Your task to perform on an android device: toggle javascript in the chrome app Image 0: 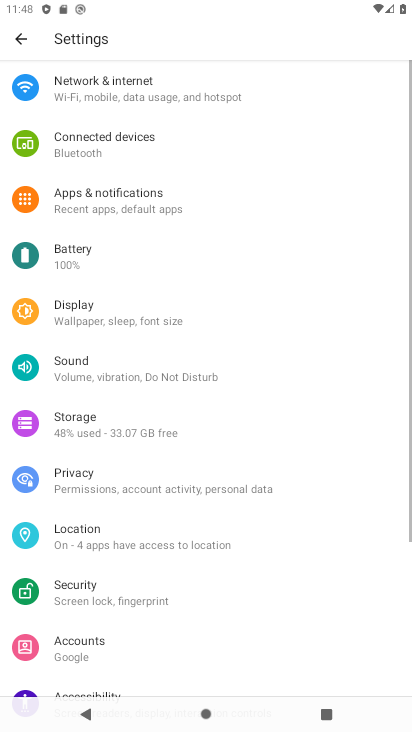
Step 0: press home button
Your task to perform on an android device: toggle javascript in the chrome app Image 1: 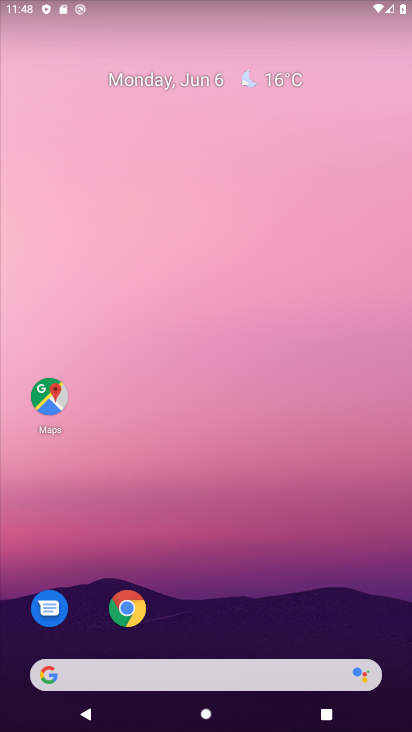
Step 1: click (126, 610)
Your task to perform on an android device: toggle javascript in the chrome app Image 2: 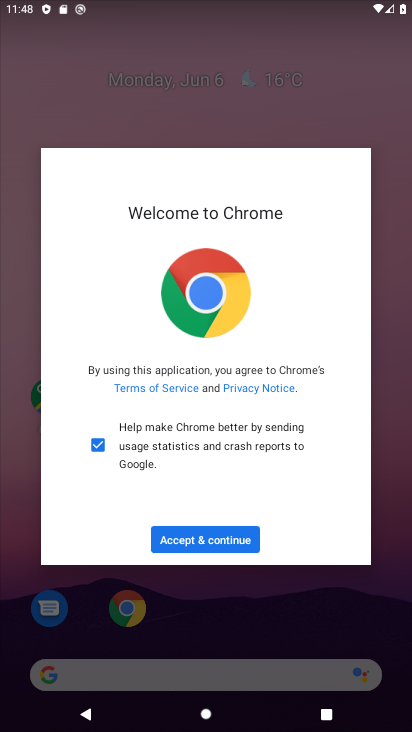
Step 2: click (209, 538)
Your task to perform on an android device: toggle javascript in the chrome app Image 3: 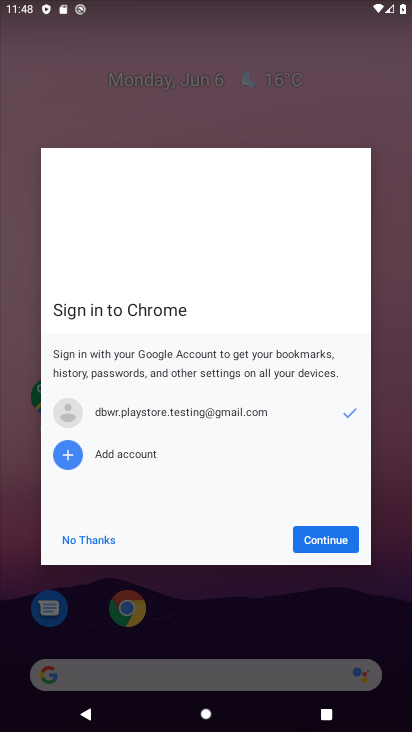
Step 3: click (306, 537)
Your task to perform on an android device: toggle javascript in the chrome app Image 4: 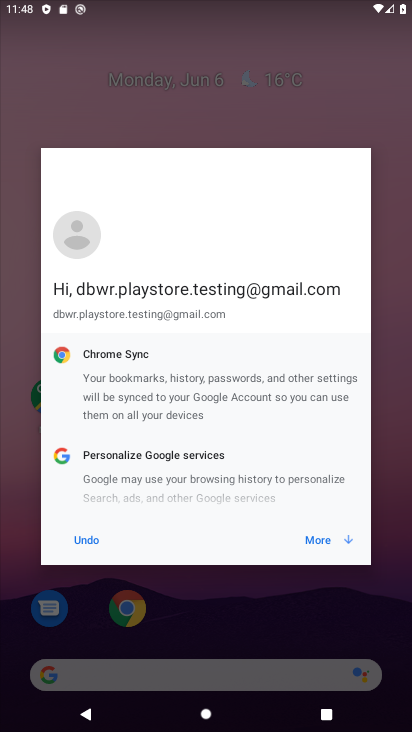
Step 4: click (309, 535)
Your task to perform on an android device: toggle javascript in the chrome app Image 5: 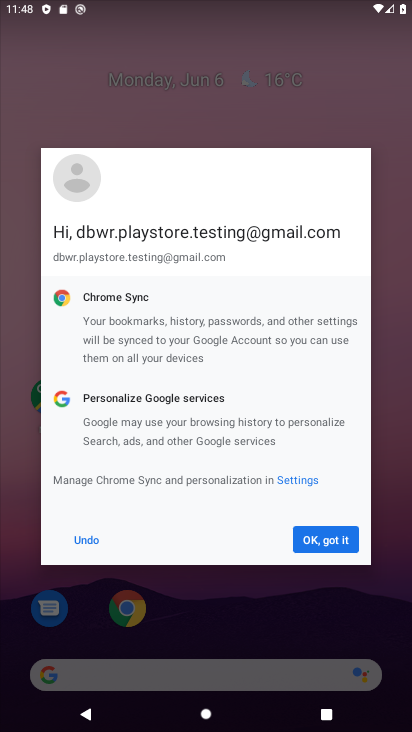
Step 5: click (338, 536)
Your task to perform on an android device: toggle javascript in the chrome app Image 6: 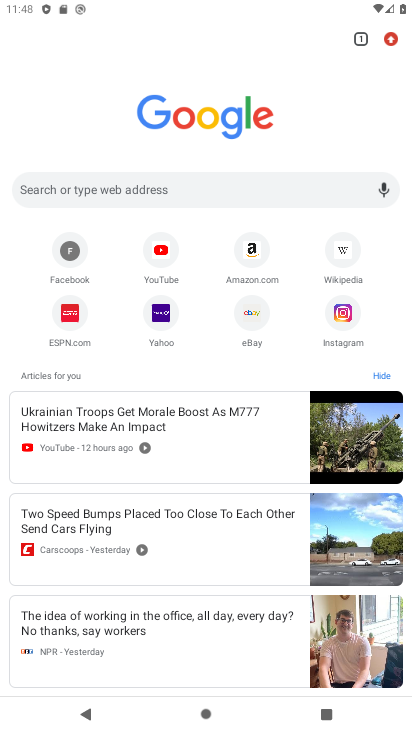
Step 6: click (388, 44)
Your task to perform on an android device: toggle javascript in the chrome app Image 7: 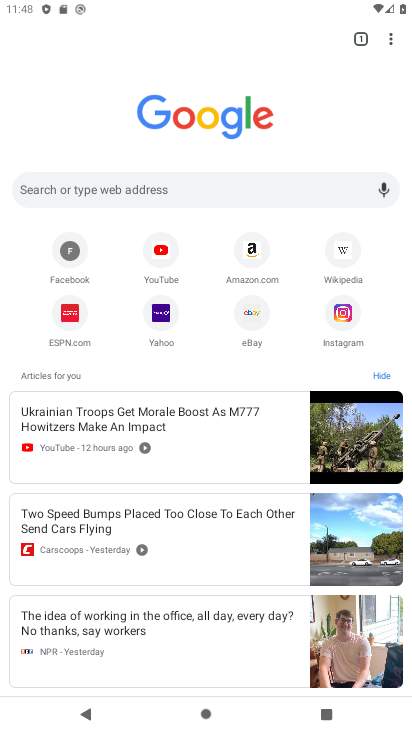
Step 7: click (388, 44)
Your task to perform on an android device: toggle javascript in the chrome app Image 8: 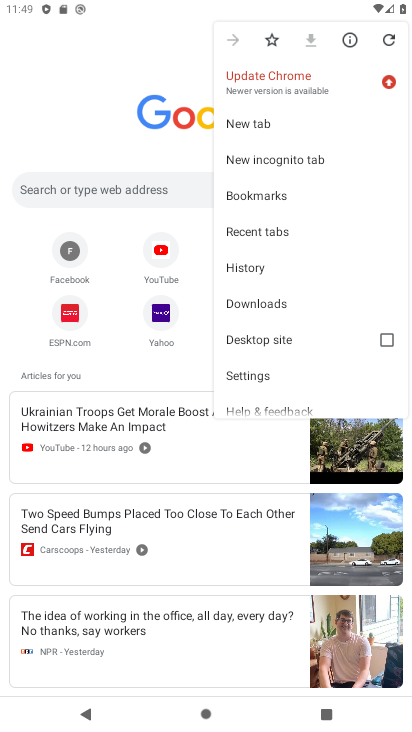
Step 8: click (281, 384)
Your task to perform on an android device: toggle javascript in the chrome app Image 9: 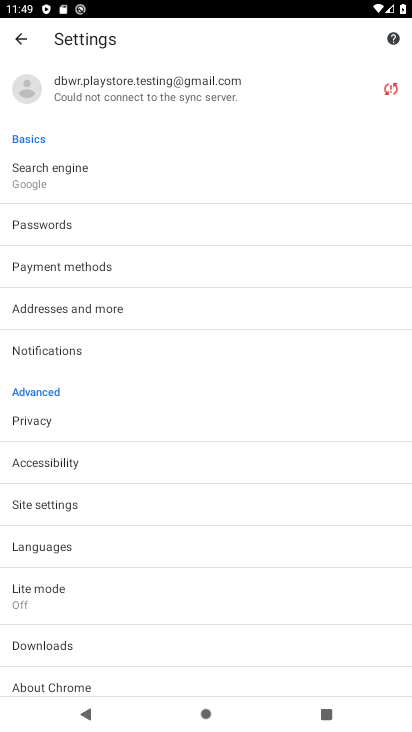
Step 9: click (50, 510)
Your task to perform on an android device: toggle javascript in the chrome app Image 10: 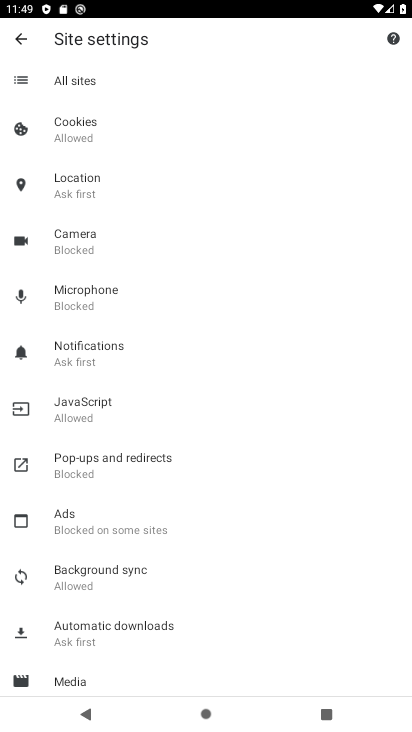
Step 10: click (105, 408)
Your task to perform on an android device: toggle javascript in the chrome app Image 11: 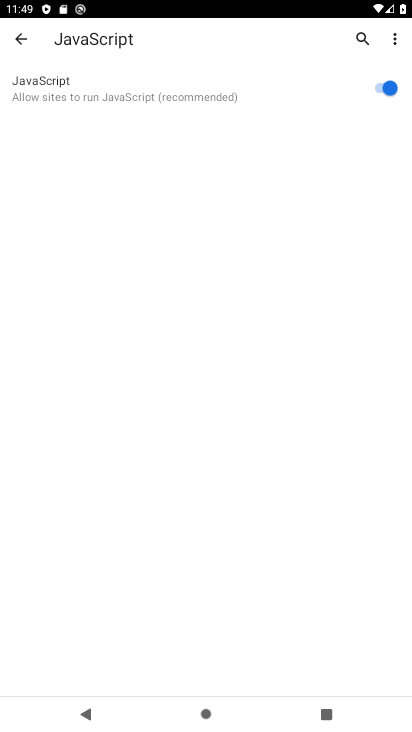
Step 11: click (390, 88)
Your task to perform on an android device: toggle javascript in the chrome app Image 12: 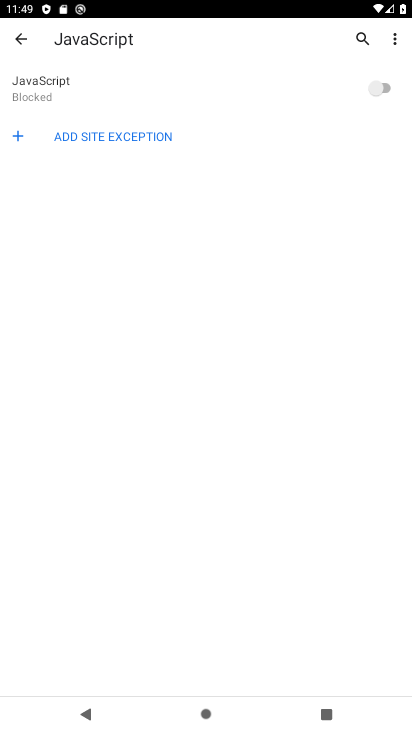
Step 12: task complete